Your task to perform on an android device: turn notification dots on Image 0: 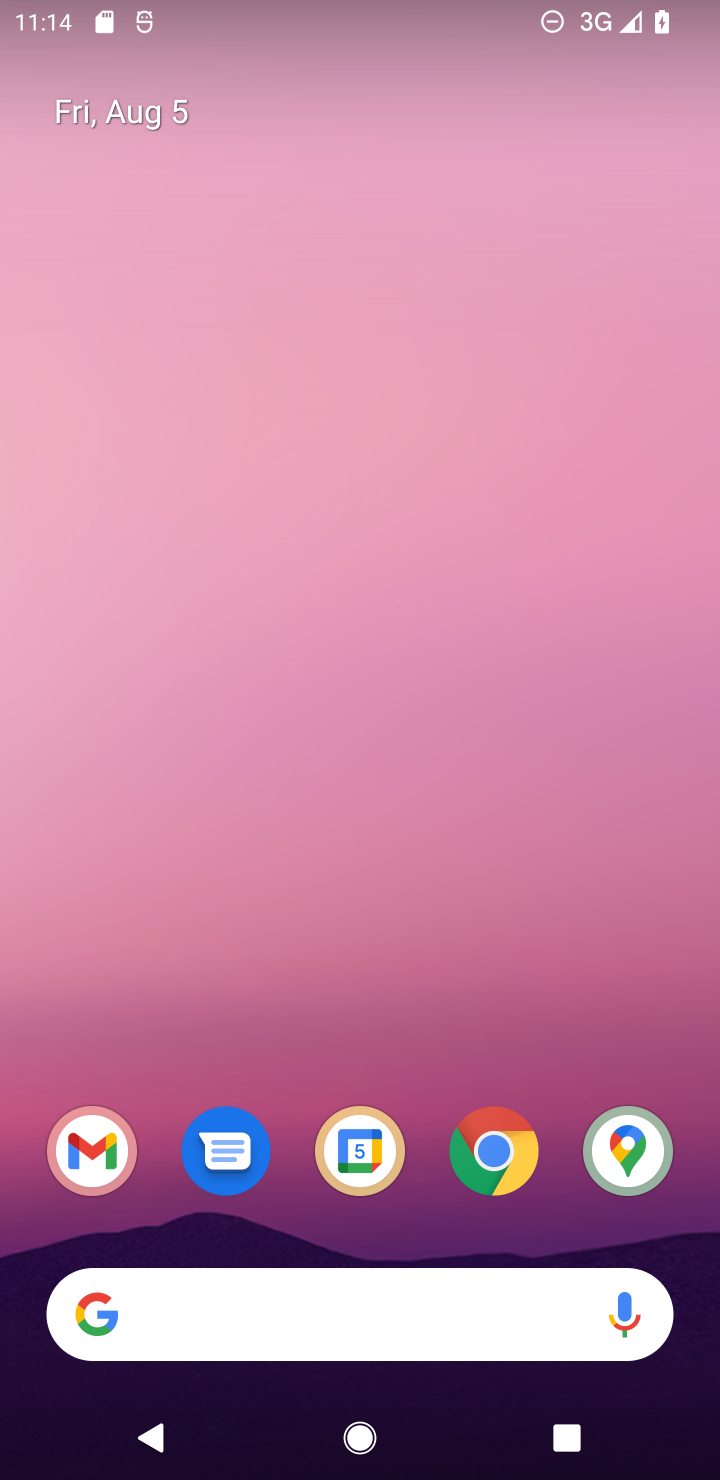
Step 0: drag from (252, 964) to (217, 345)
Your task to perform on an android device: turn notification dots on Image 1: 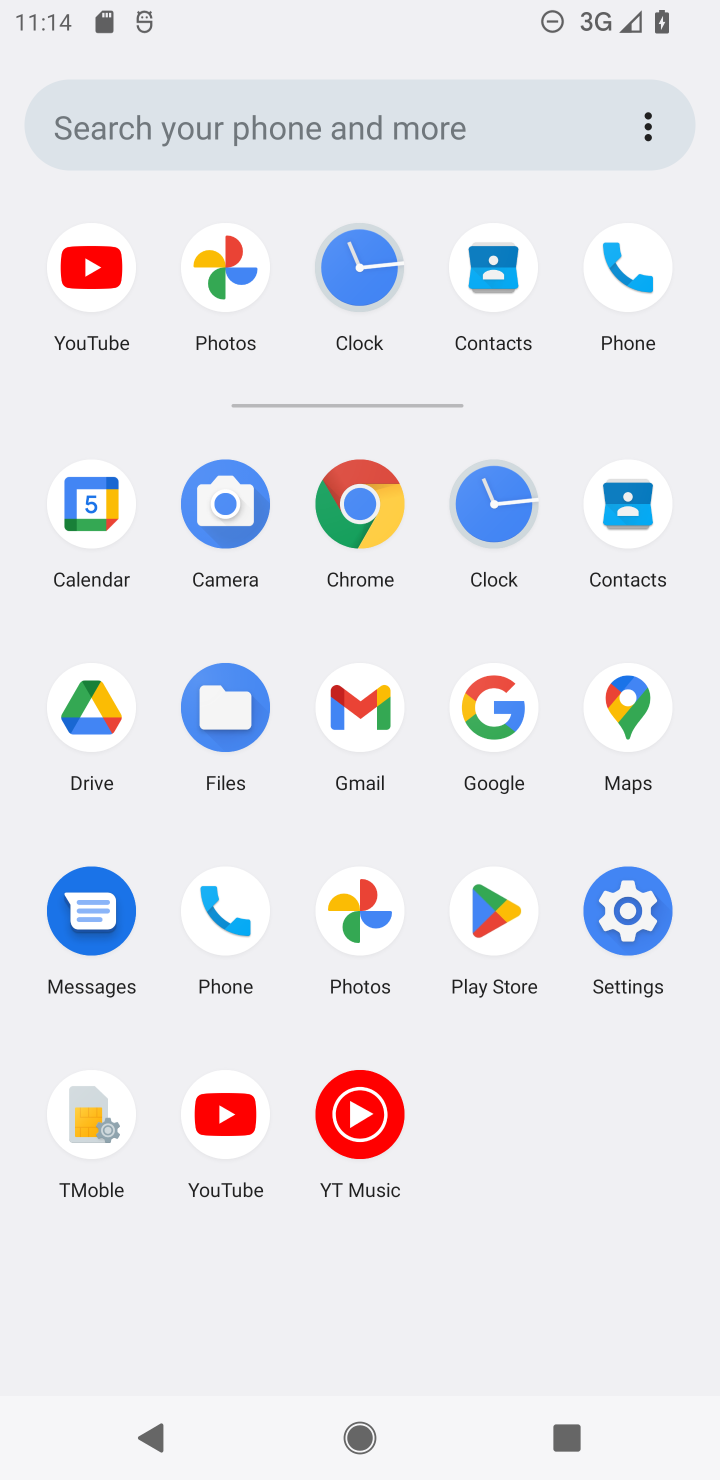
Step 1: click (622, 909)
Your task to perform on an android device: turn notification dots on Image 2: 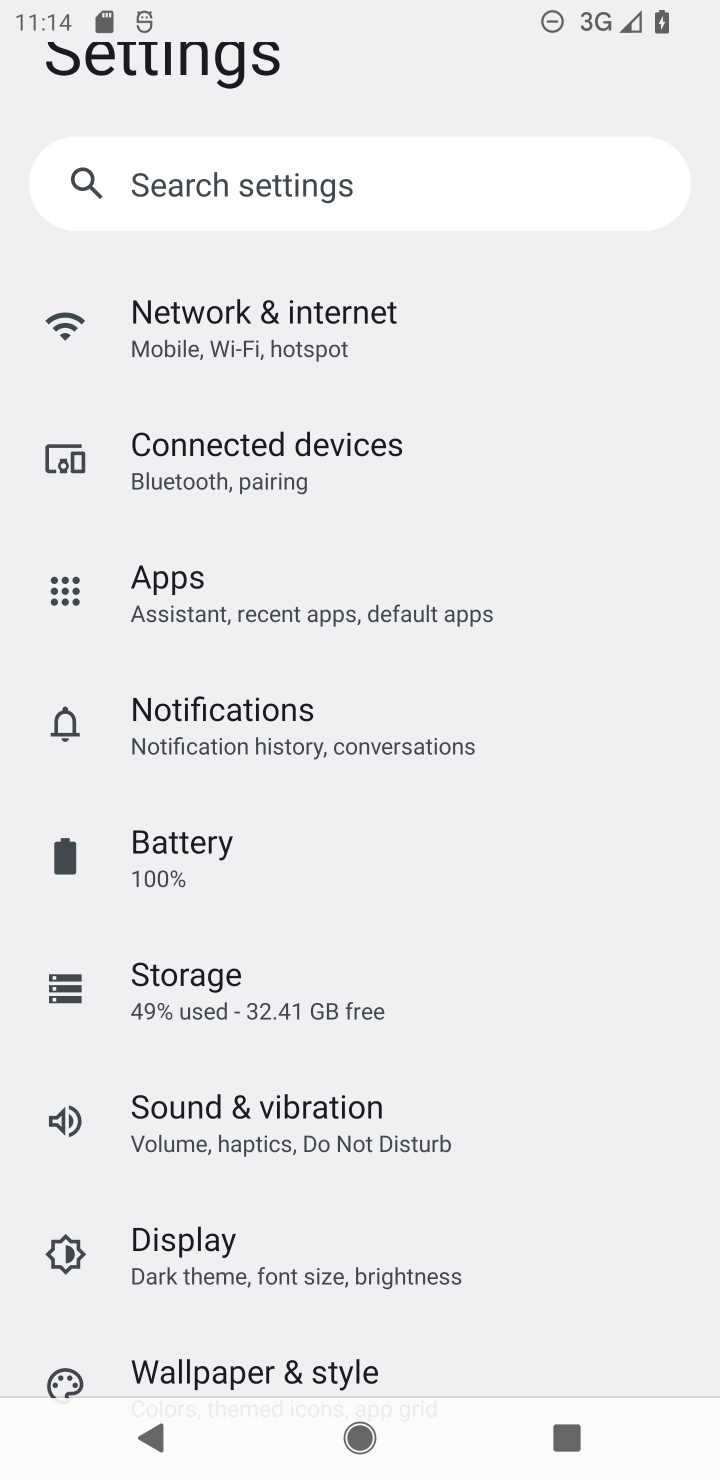
Step 2: click (242, 716)
Your task to perform on an android device: turn notification dots on Image 3: 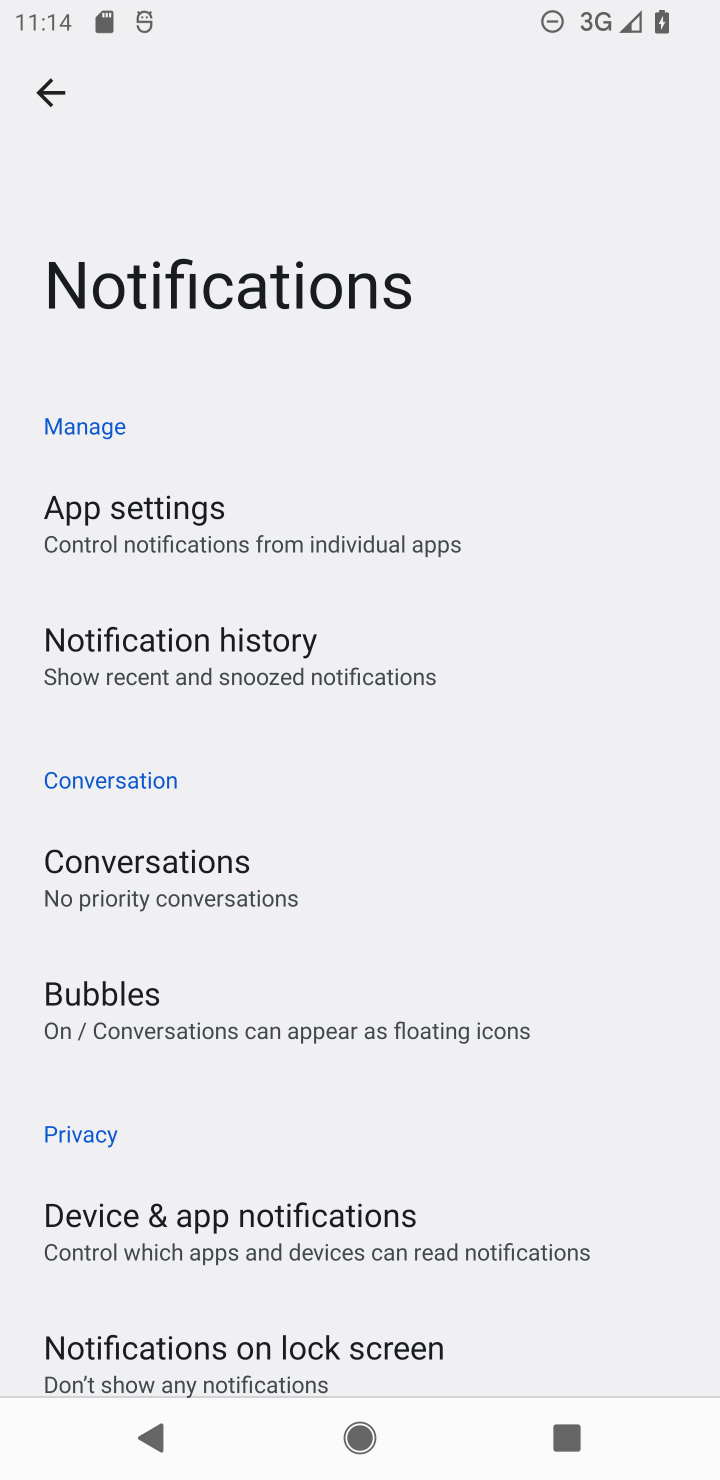
Step 3: drag from (184, 666) to (160, 480)
Your task to perform on an android device: turn notification dots on Image 4: 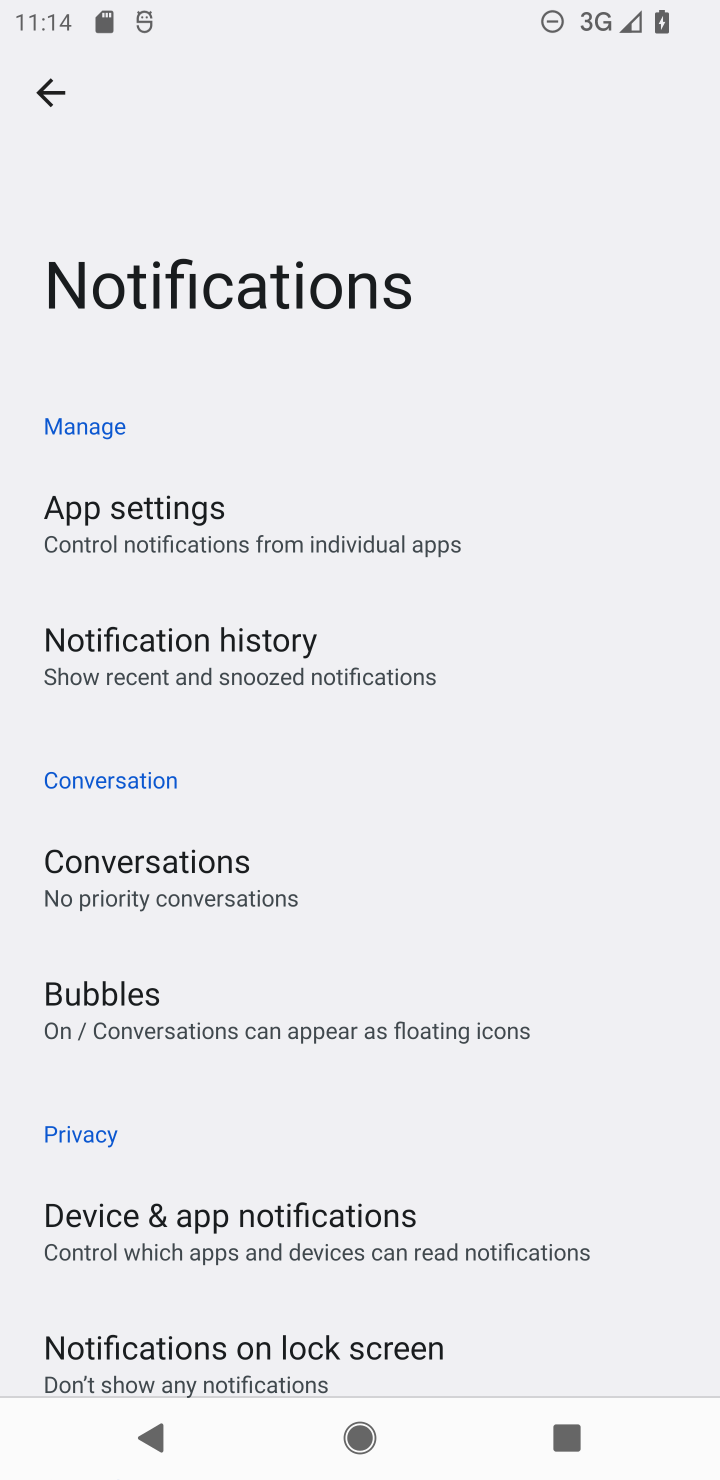
Step 4: drag from (203, 1174) to (230, 527)
Your task to perform on an android device: turn notification dots on Image 5: 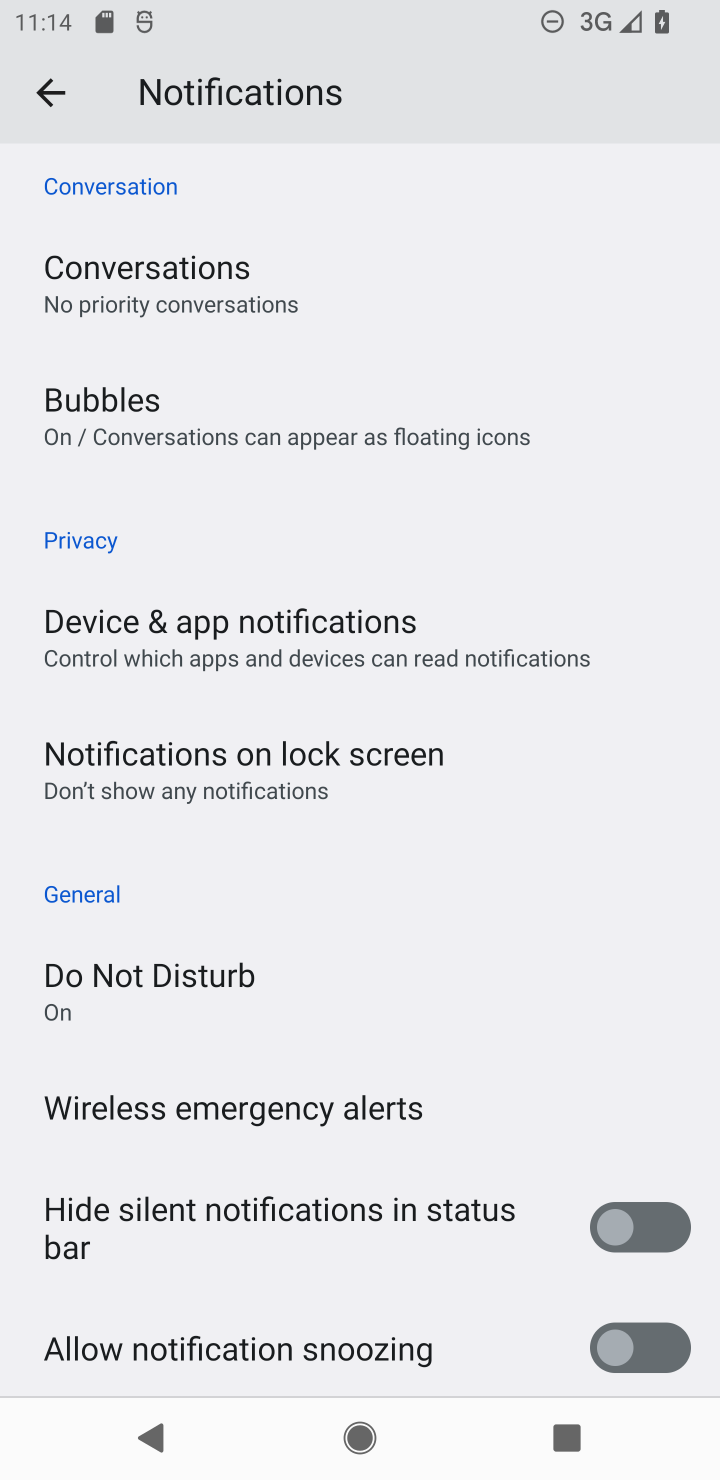
Step 5: drag from (232, 841) to (239, 679)
Your task to perform on an android device: turn notification dots on Image 6: 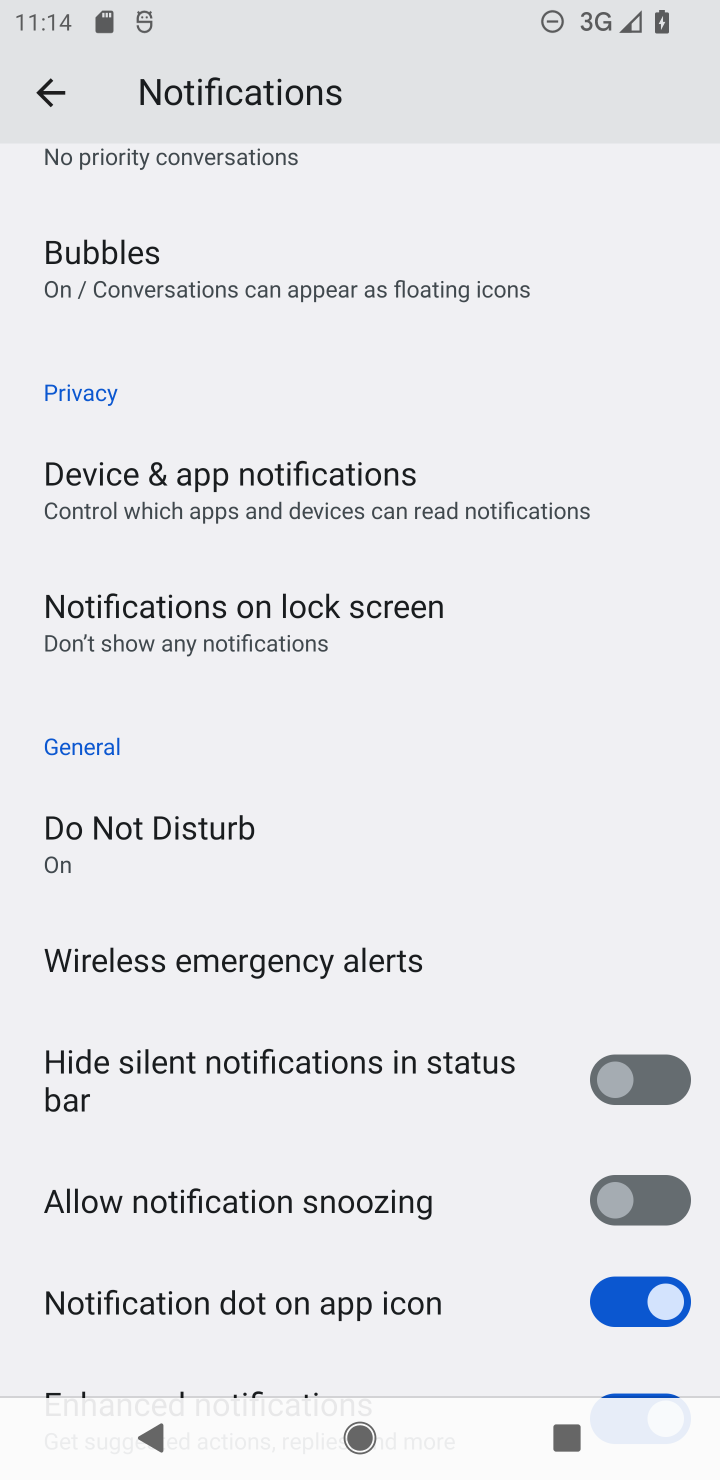
Step 6: click (599, 1310)
Your task to perform on an android device: turn notification dots on Image 7: 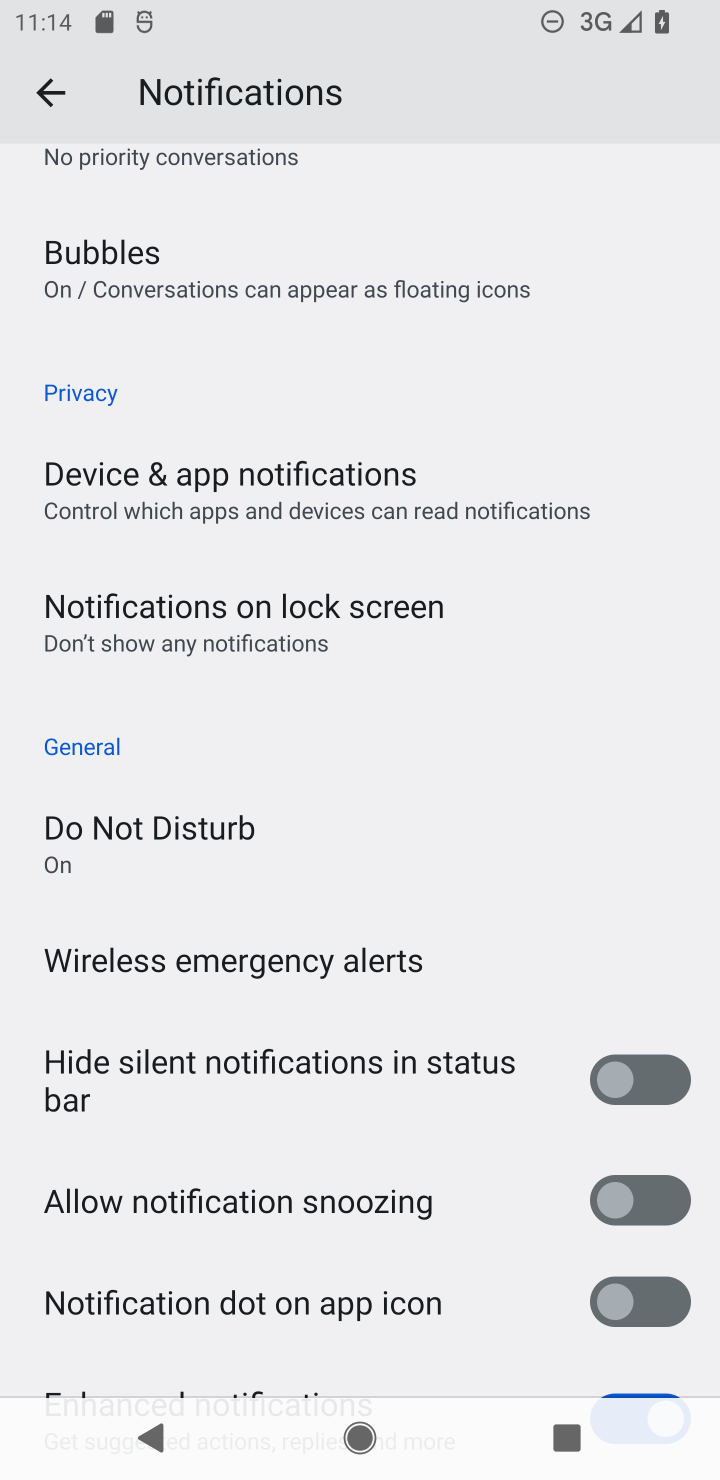
Step 7: click (676, 1310)
Your task to perform on an android device: turn notification dots on Image 8: 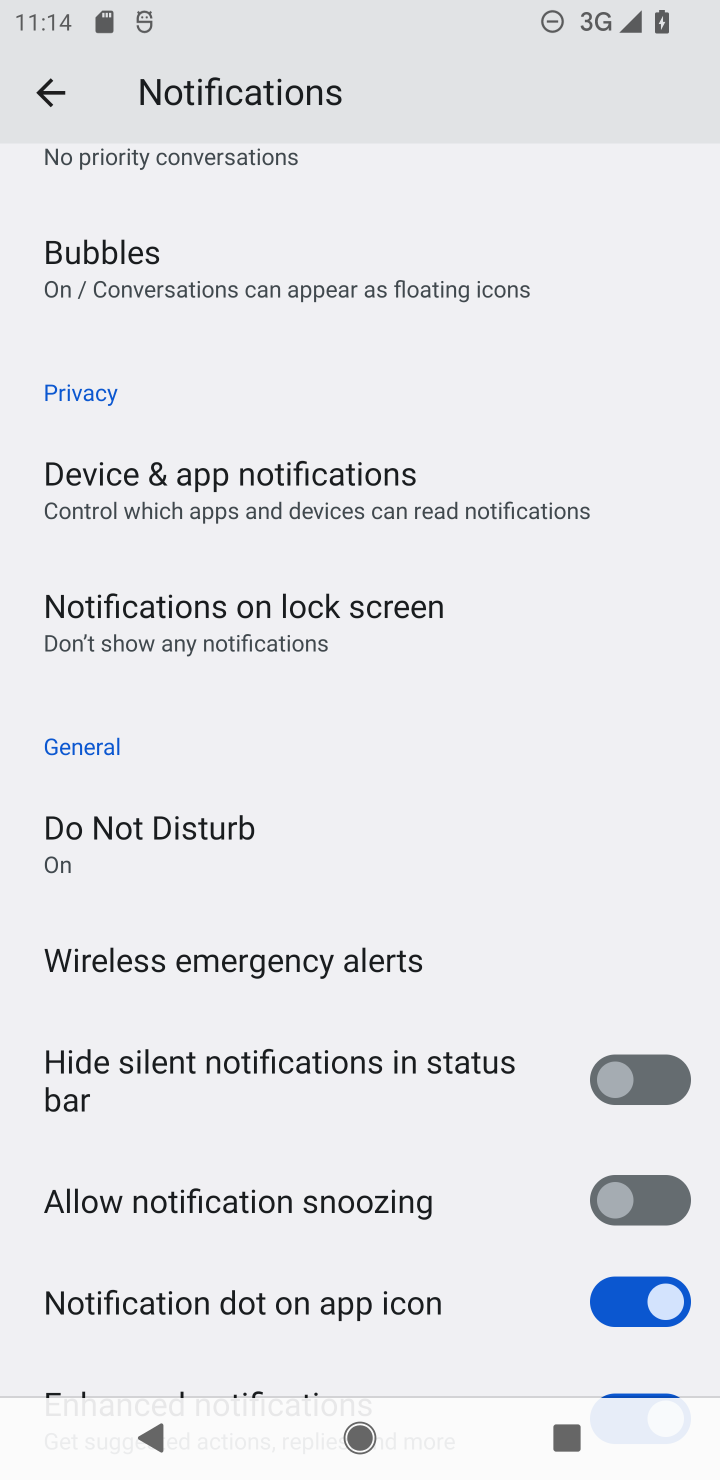
Step 8: task complete